Your task to perform on an android device: open chrome privacy settings Image 0: 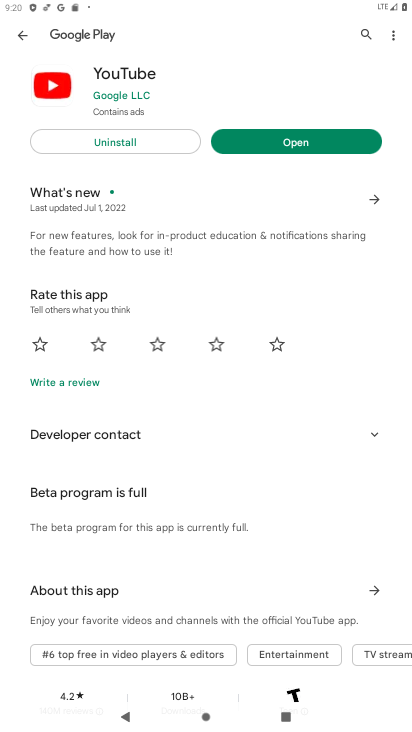
Step 0: press home button
Your task to perform on an android device: open chrome privacy settings Image 1: 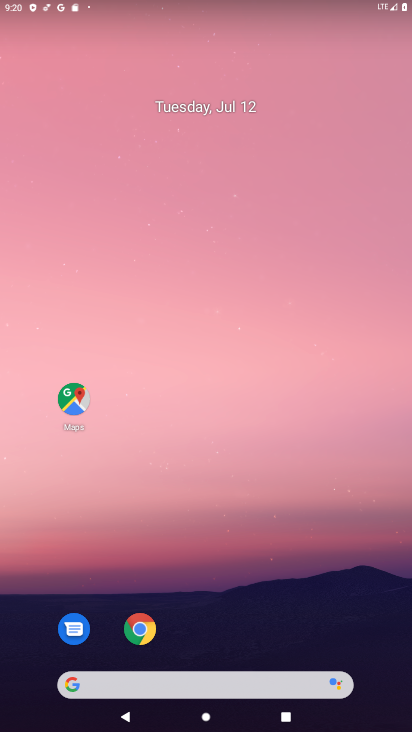
Step 1: drag from (229, 635) to (184, 76)
Your task to perform on an android device: open chrome privacy settings Image 2: 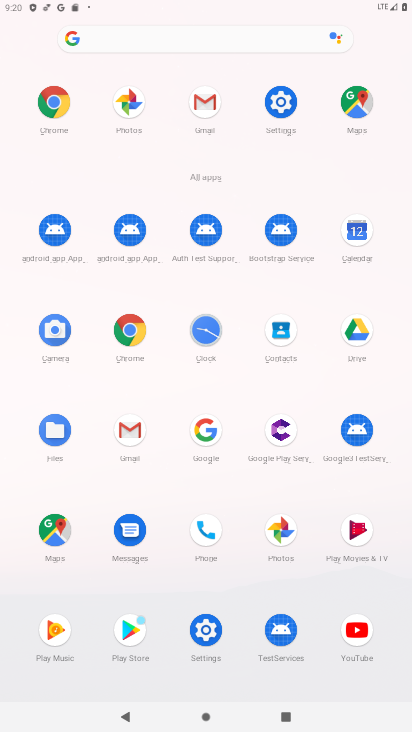
Step 2: click (48, 107)
Your task to perform on an android device: open chrome privacy settings Image 3: 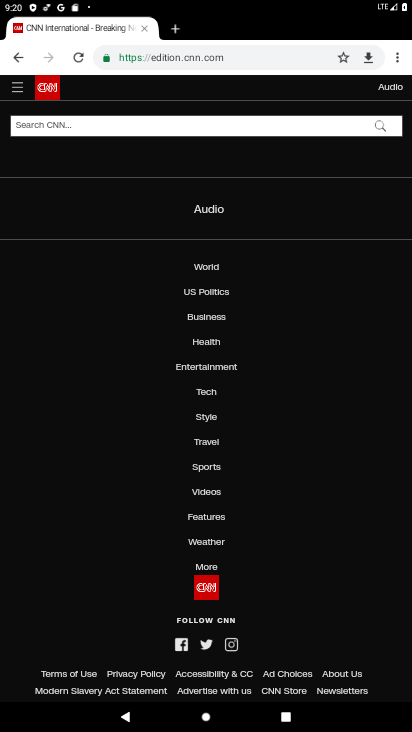
Step 3: click (397, 51)
Your task to perform on an android device: open chrome privacy settings Image 4: 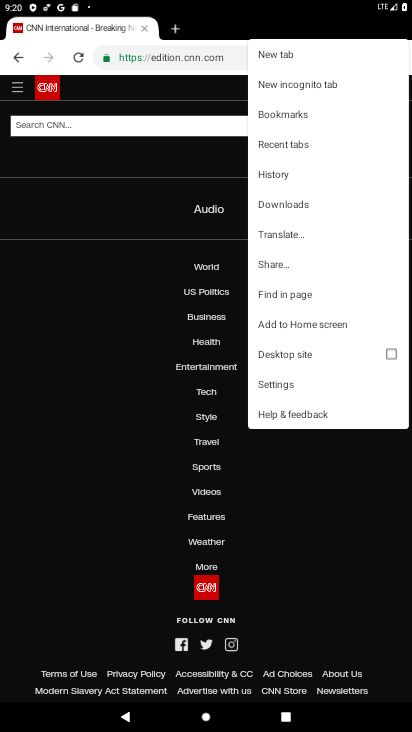
Step 4: click (287, 388)
Your task to perform on an android device: open chrome privacy settings Image 5: 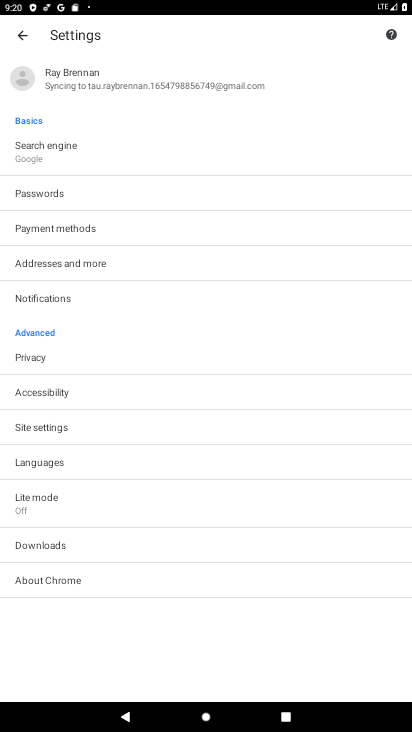
Step 5: click (110, 354)
Your task to perform on an android device: open chrome privacy settings Image 6: 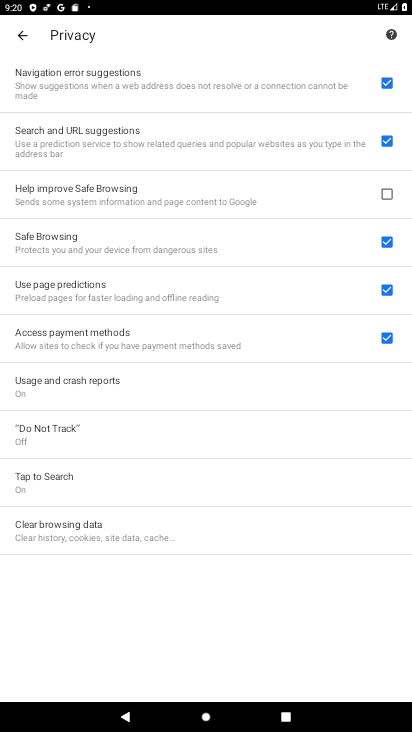
Step 6: task complete